Your task to perform on an android device: turn on improve location accuracy Image 0: 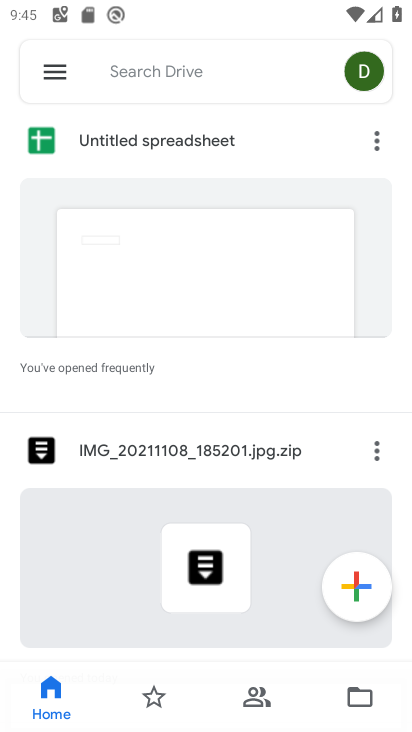
Step 0: press home button
Your task to perform on an android device: turn on improve location accuracy Image 1: 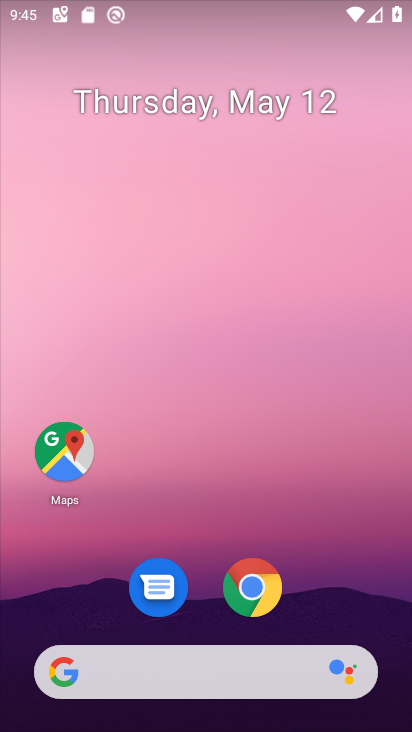
Step 1: drag from (399, 639) to (195, 12)
Your task to perform on an android device: turn on improve location accuracy Image 2: 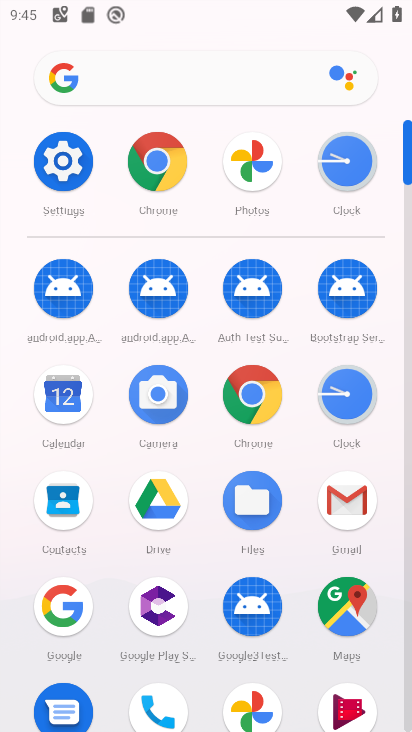
Step 2: click (54, 164)
Your task to perform on an android device: turn on improve location accuracy Image 3: 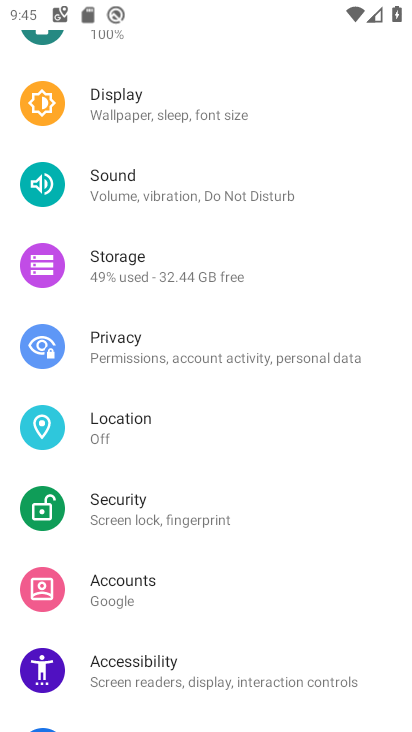
Step 3: click (177, 422)
Your task to perform on an android device: turn on improve location accuracy Image 4: 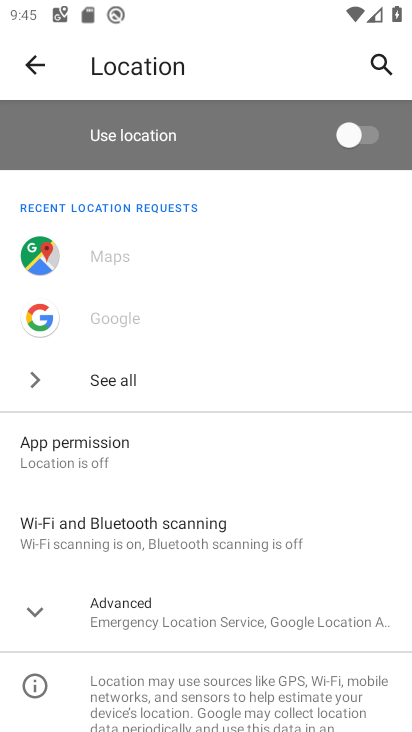
Step 4: click (114, 472)
Your task to perform on an android device: turn on improve location accuracy Image 5: 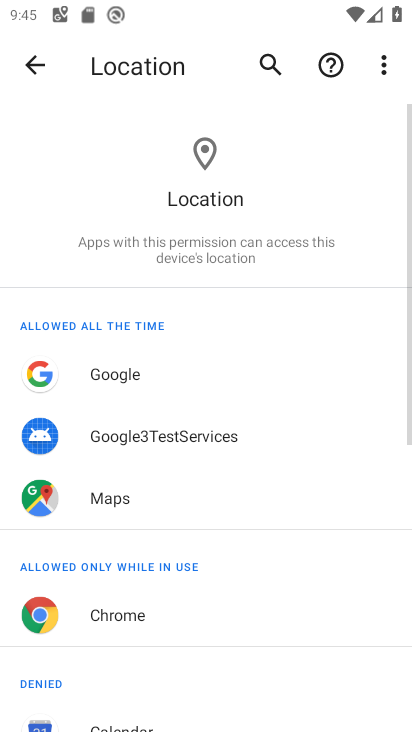
Step 5: click (23, 67)
Your task to perform on an android device: turn on improve location accuracy Image 6: 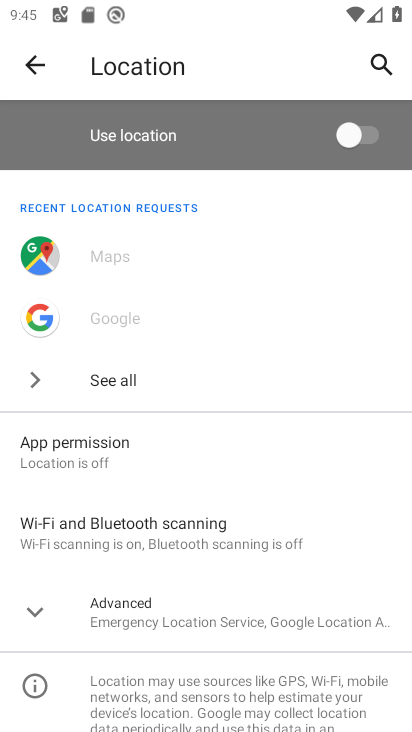
Step 6: click (109, 607)
Your task to perform on an android device: turn on improve location accuracy Image 7: 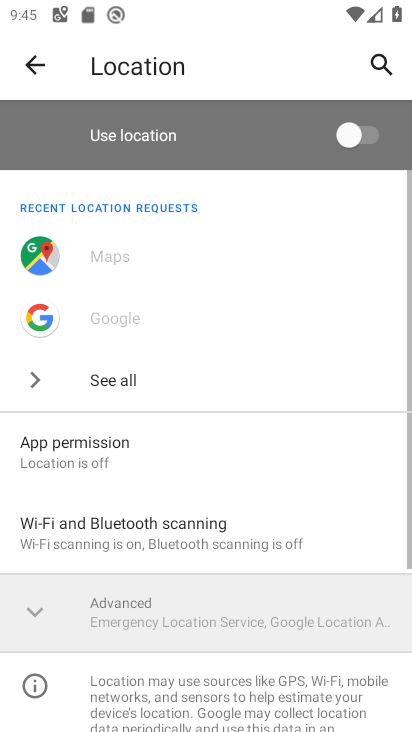
Step 7: drag from (109, 607) to (137, 286)
Your task to perform on an android device: turn on improve location accuracy Image 8: 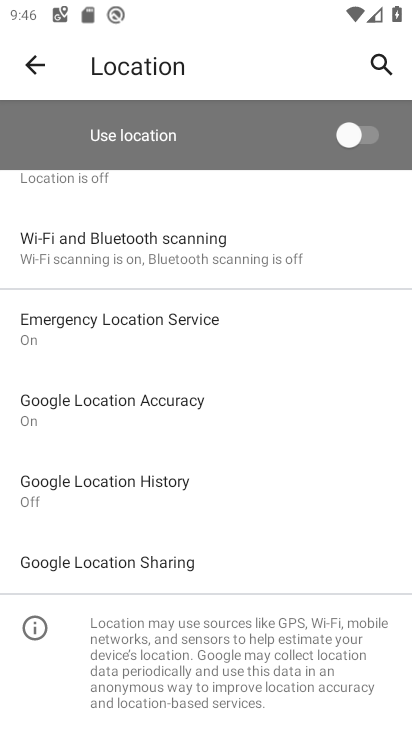
Step 8: click (178, 394)
Your task to perform on an android device: turn on improve location accuracy Image 9: 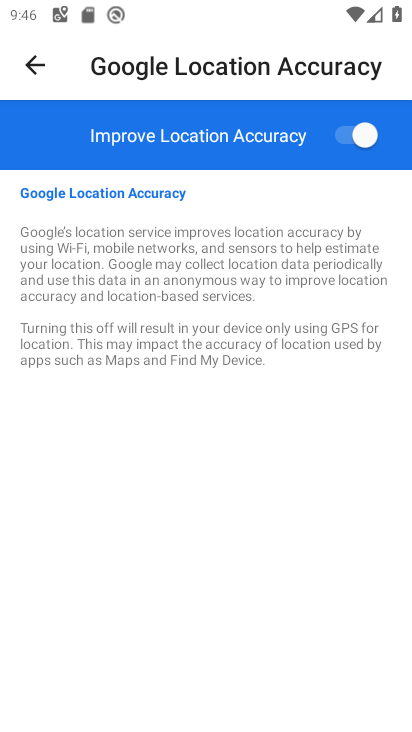
Step 9: task complete